Your task to perform on an android device: turn on airplane mode Image 0: 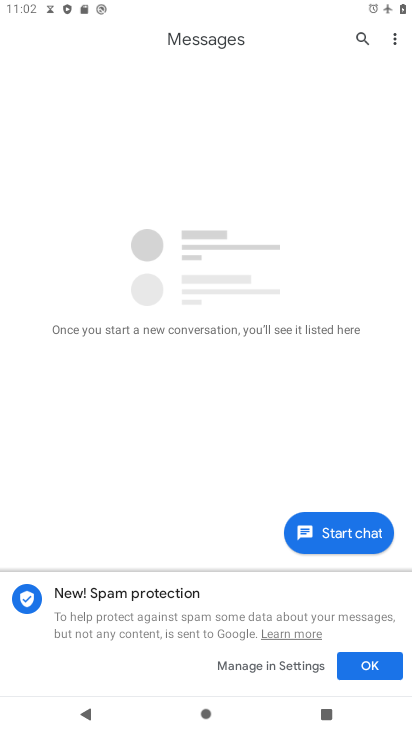
Step 0: press home button
Your task to perform on an android device: turn on airplane mode Image 1: 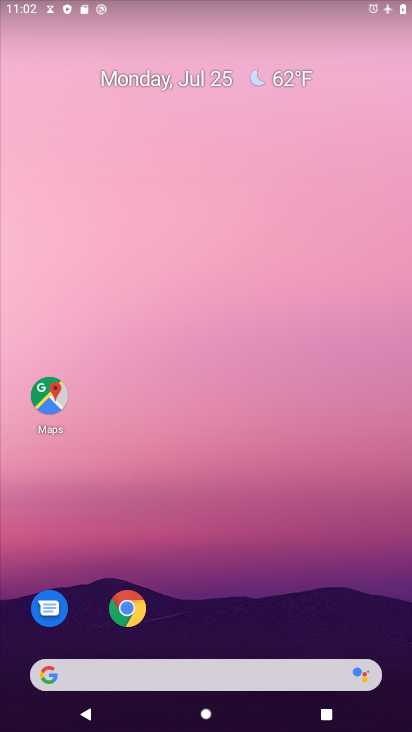
Step 1: drag from (203, 676) to (262, 94)
Your task to perform on an android device: turn on airplane mode Image 2: 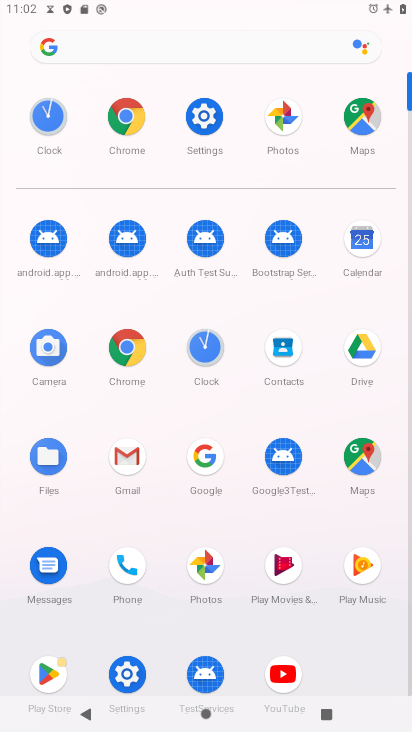
Step 2: click (204, 113)
Your task to perform on an android device: turn on airplane mode Image 3: 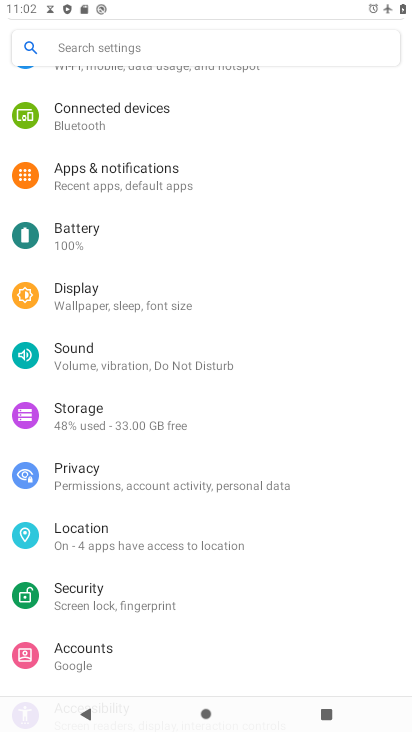
Step 3: drag from (204, 113) to (151, 377)
Your task to perform on an android device: turn on airplane mode Image 4: 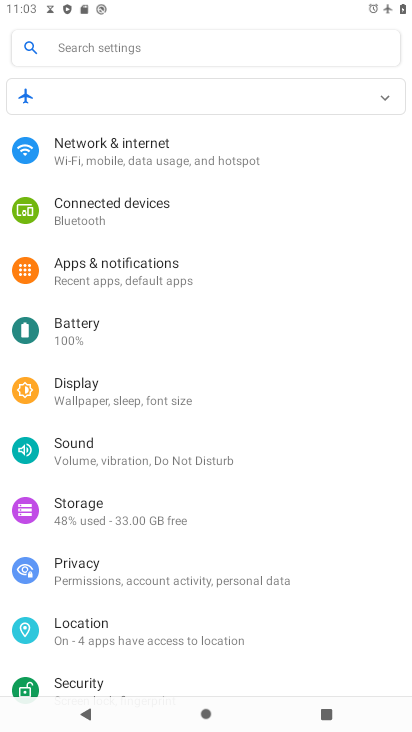
Step 4: click (136, 156)
Your task to perform on an android device: turn on airplane mode Image 5: 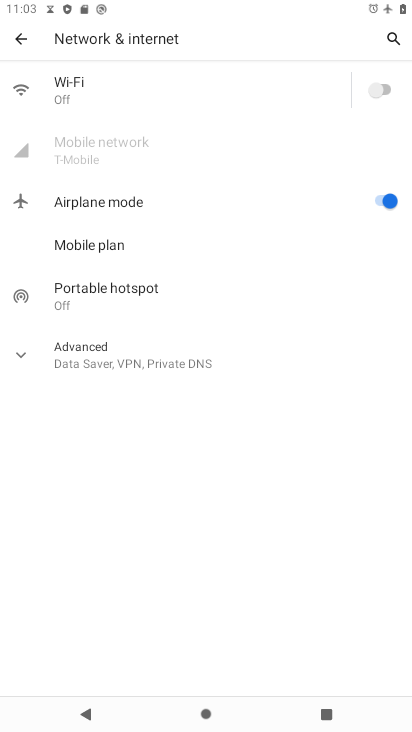
Step 5: task complete